Your task to perform on an android device: delete the emails in spam in the gmail app Image 0: 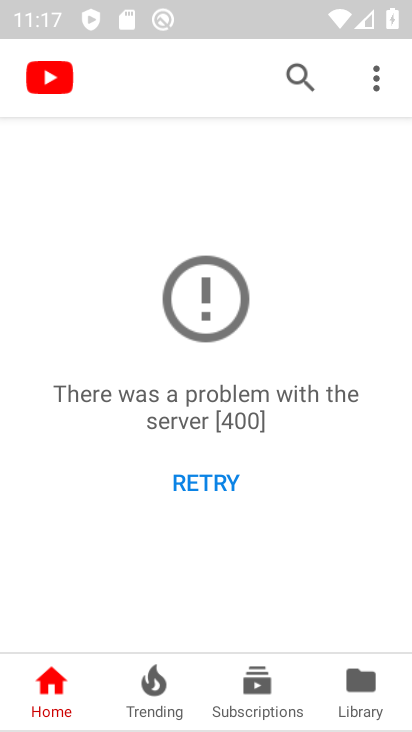
Step 0: press home button
Your task to perform on an android device: delete the emails in spam in the gmail app Image 1: 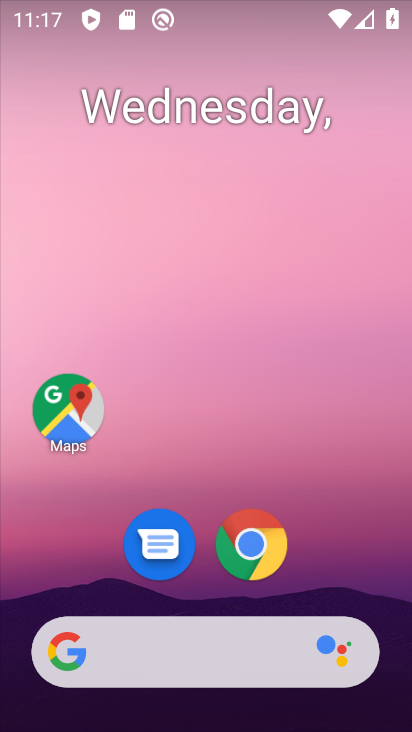
Step 1: drag from (345, 564) to (364, 63)
Your task to perform on an android device: delete the emails in spam in the gmail app Image 2: 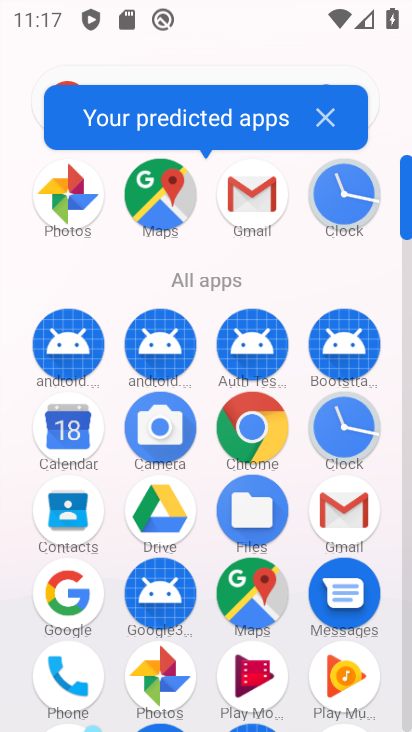
Step 2: click (365, 491)
Your task to perform on an android device: delete the emails in spam in the gmail app Image 3: 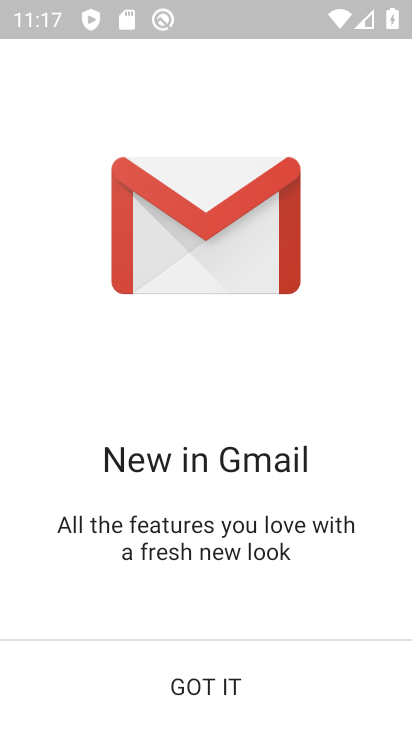
Step 3: click (157, 692)
Your task to perform on an android device: delete the emails in spam in the gmail app Image 4: 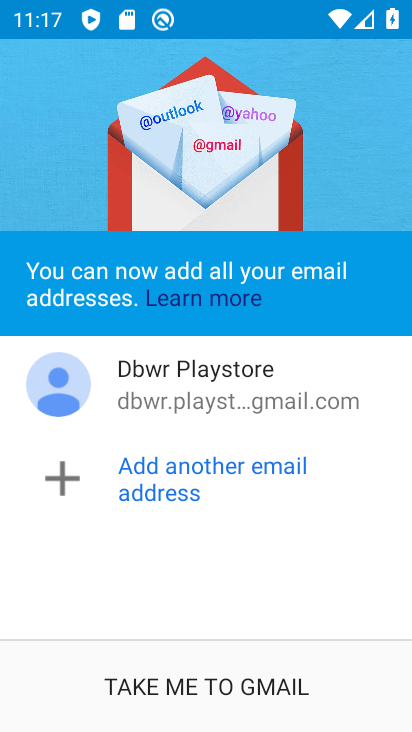
Step 4: click (145, 675)
Your task to perform on an android device: delete the emails in spam in the gmail app Image 5: 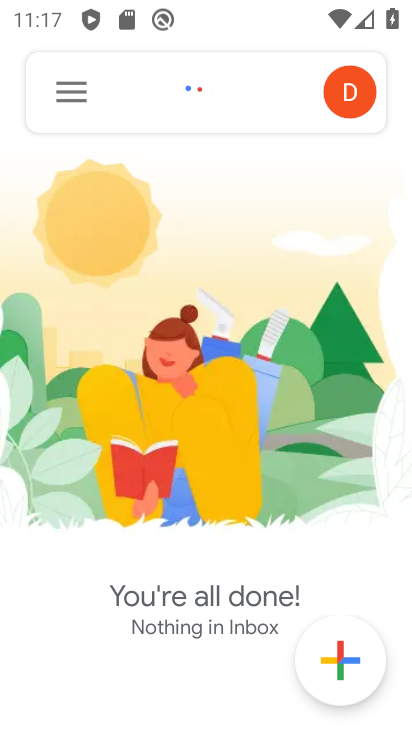
Step 5: click (67, 99)
Your task to perform on an android device: delete the emails in spam in the gmail app Image 6: 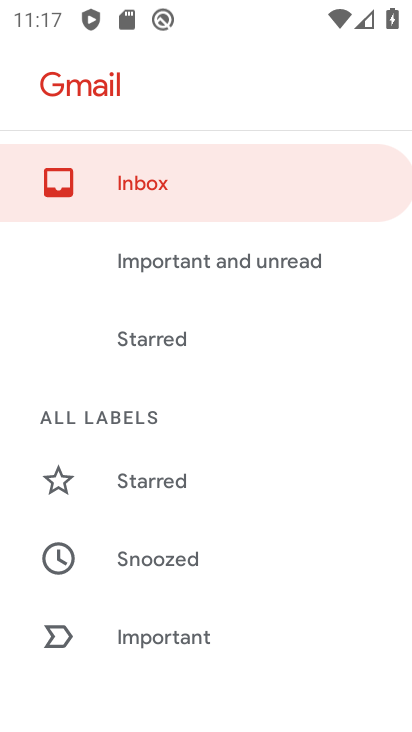
Step 6: task complete